Your task to perform on an android device: turn vacation reply on in the gmail app Image 0: 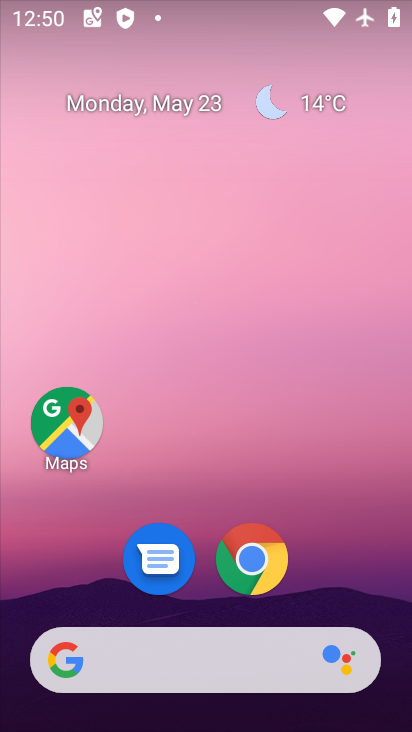
Step 0: drag from (361, 609) to (388, 31)
Your task to perform on an android device: turn vacation reply on in the gmail app Image 1: 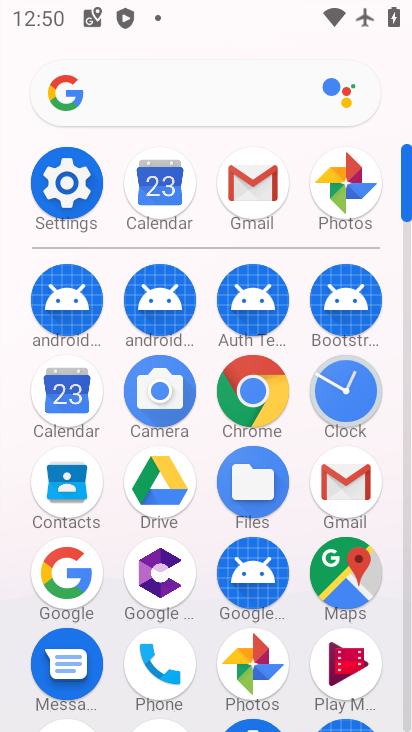
Step 1: click (246, 190)
Your task to perform on an android device: turn vacation reply on in the gmail app Image 2: 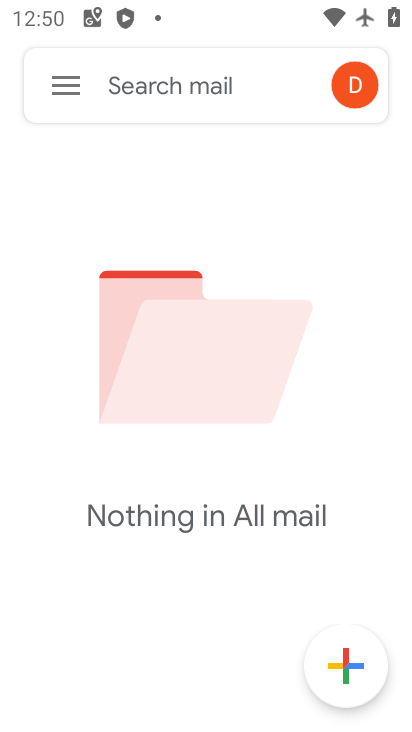
Step 2: click (70, 83)
Your task to perform on an android device: turn vacation reply on in the gmail app Image 3: 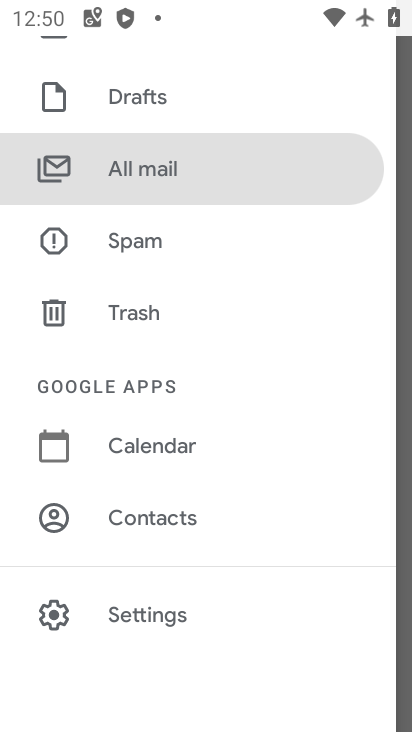
Step 3: click (170, 616)
Your task to perform on an android device: turn vacation reply on in the gmail app Image 4: 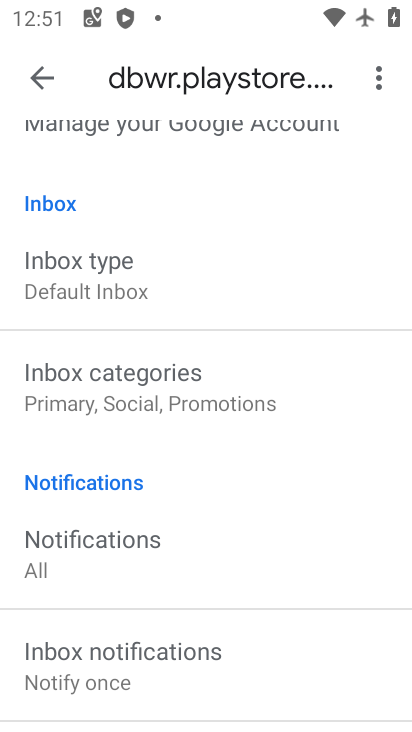
Step 4: drag from (226, 553) to (236, 139)
Your task to perform on an android device: turn vacation reply on in the gmail app Image 5: 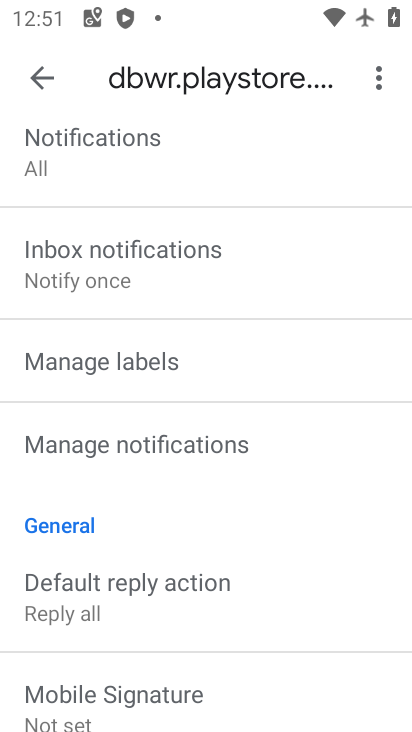
Step 5: drag from (205, 549) to (225, 156)
Your task to perform on an android device: turn vacation reply on in the gmail app Image 6: 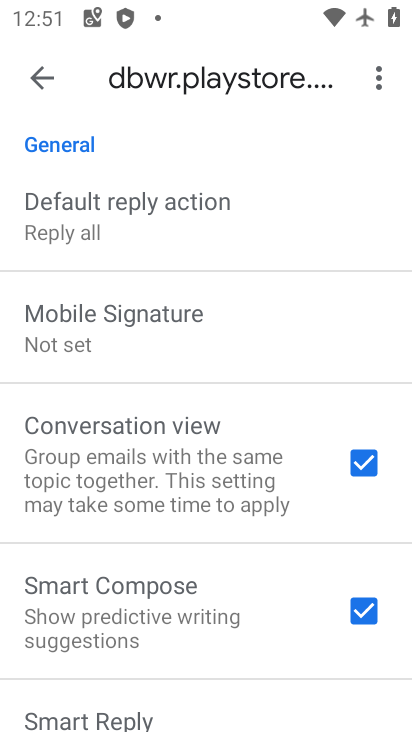
Step 6: drag from (146, 510) to (170, 176)
Your task to perform on an android device: turn vacation reply on in the gmail app Image 7: 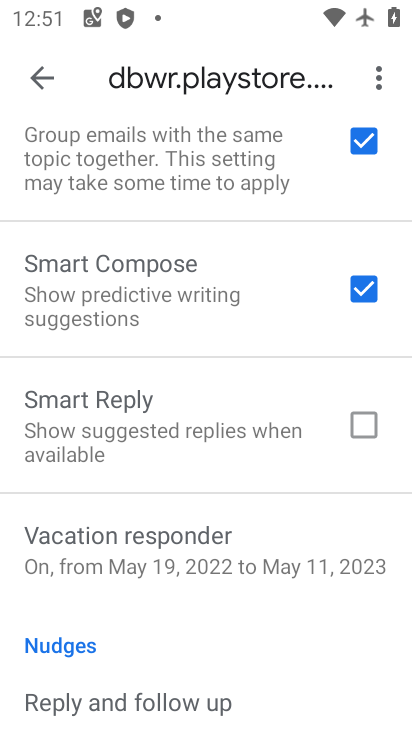
Step 7: click (113, 562)
Your task to perform on an android device: turn vacation reply on in the gmail app Image 8: 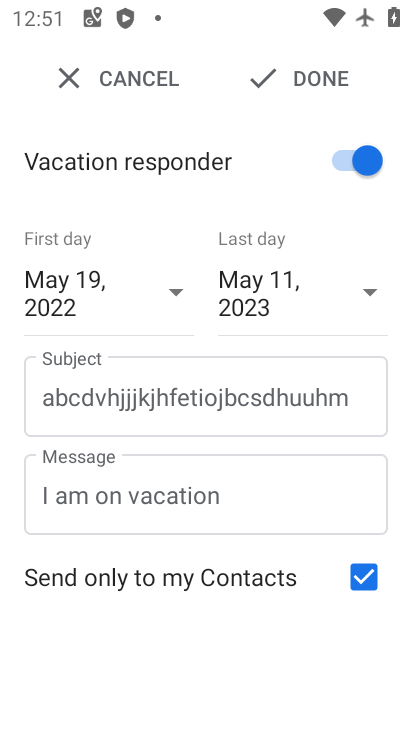
Step 8: click (304, 82)
Your task to perform on an android device: turn vacation reply on in the gmail app Image 9: 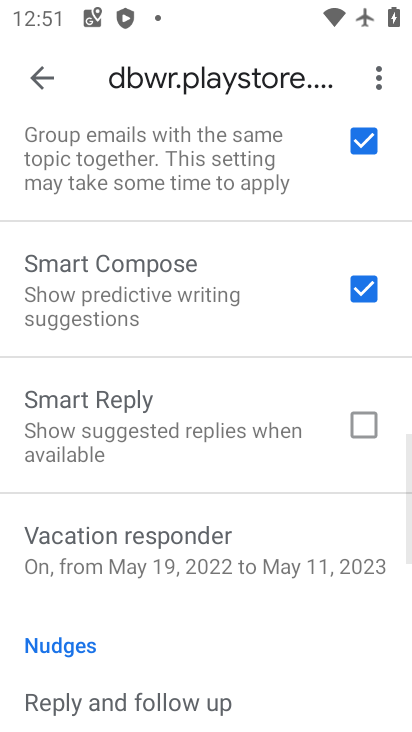
Step 9: task complete